Your task to perform on an android device: Open calendar and show me the first week of next month Image 0: 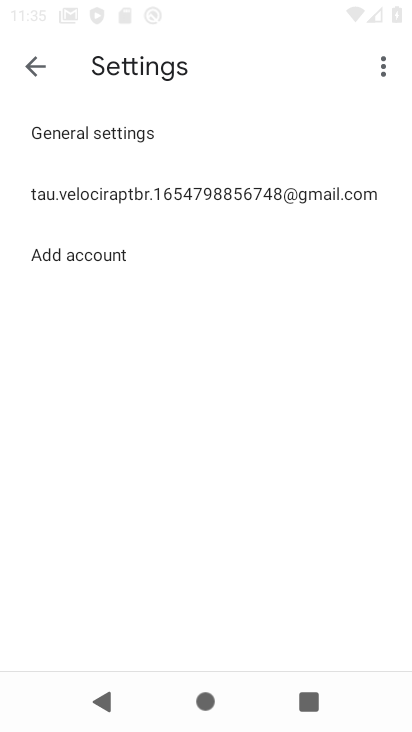
Step 0: click (219, 632)
Your task to perform on an android device: Open calendar and show me the first week of next month Image 1: 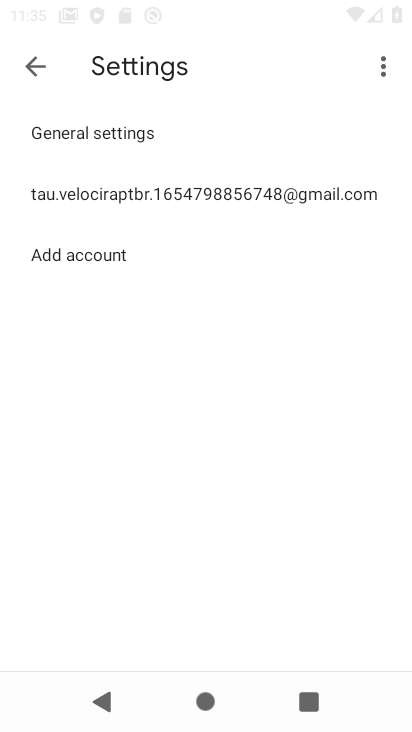
Step 1: press home button
Your task to perform on an android device: Open calendar and show me the first week of next month Image 2: 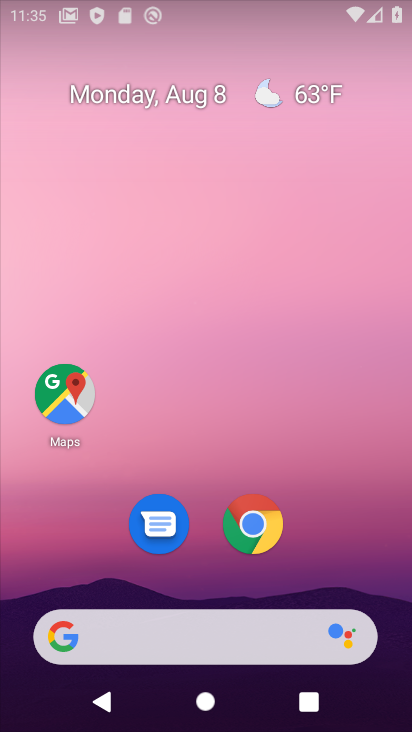
Step 2: click (154, 109)
Your task to perform on an android device: Open calendar and show me the first week of next month Image 3: 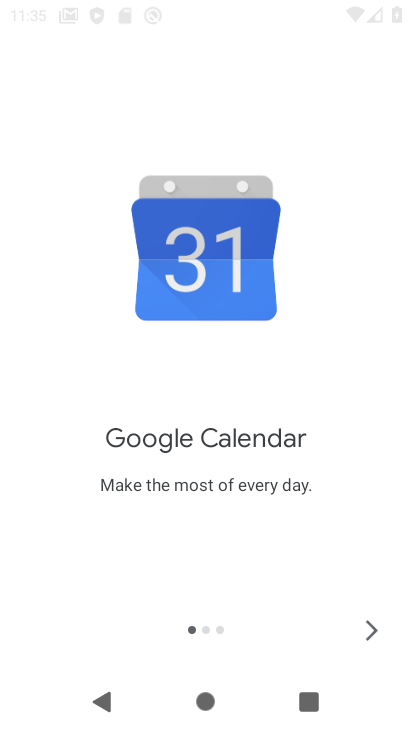
Step 3: click (365, 633)
Your task to perform on an android device: Open calendar and show me the first week of next month Image 4: 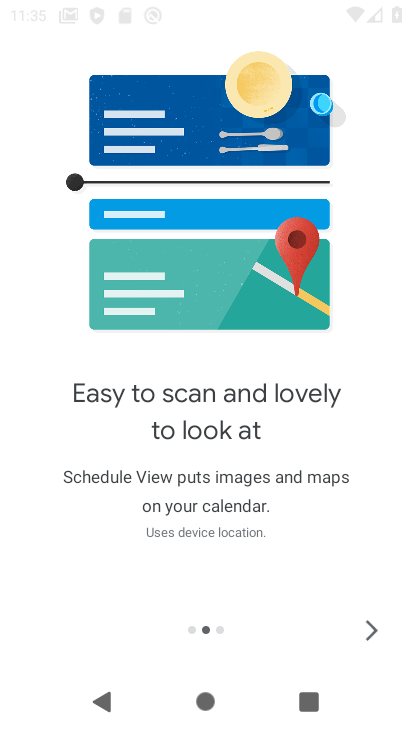
Step 4: click (365, 633)
Your task to perform on an android device: Open calendar and show me the first week of next month Image 5: 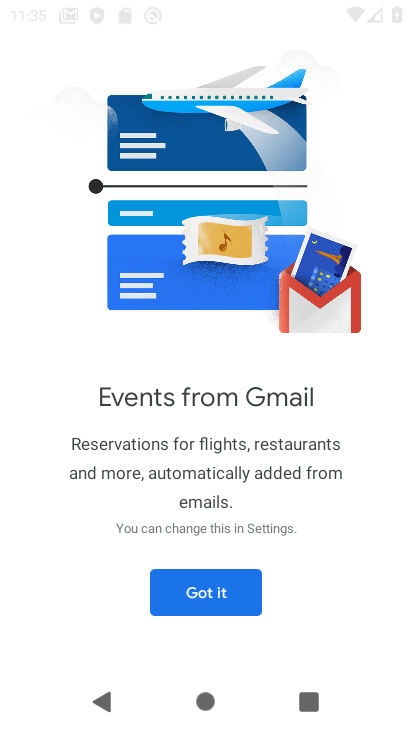
Step 5: click (194, 590)
Your task to perform on an android device: Open calendar and show me the first week of next month Image 6: 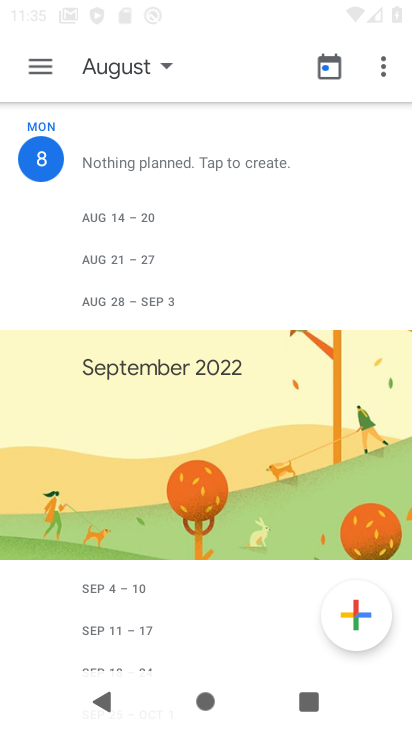
Step 6: click (121, 67)
Your task to perform on an android device: Open calendar and show me the first week of next month Image 7: 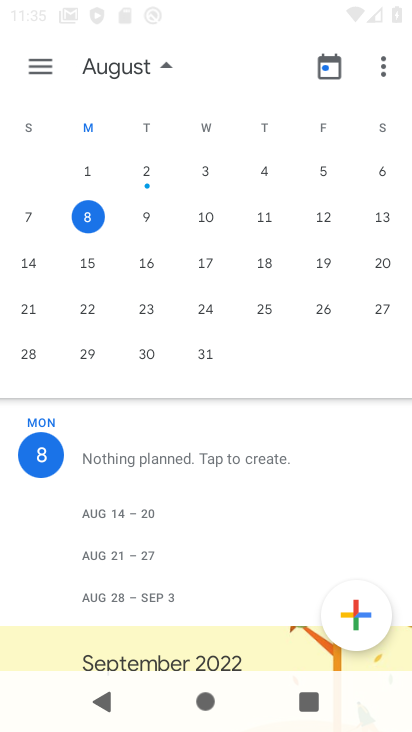
Step 7: task complete